Your task to perform on an android device: Go to Maps Image 0: 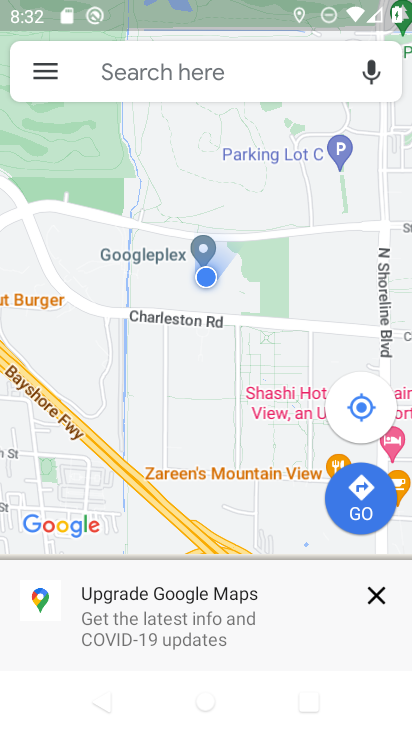
Step 0: drag from (273, 217) to (339, 162)
Your task to perform on an android device: Go to Maps Image 1: 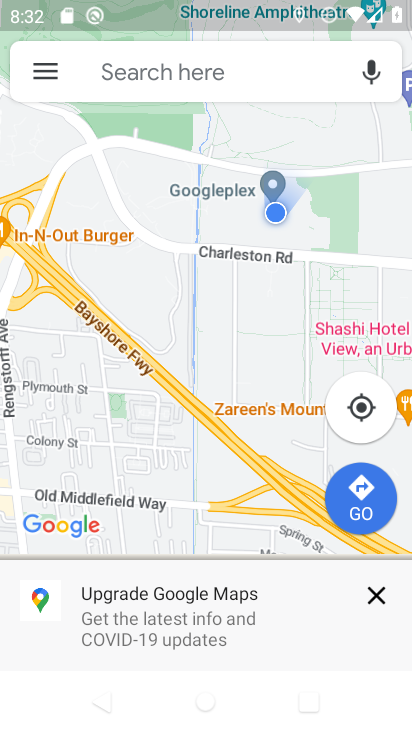
Step 1: task complete